Your task to perform on an android device: Show me popular games on the Play Store Image 0: 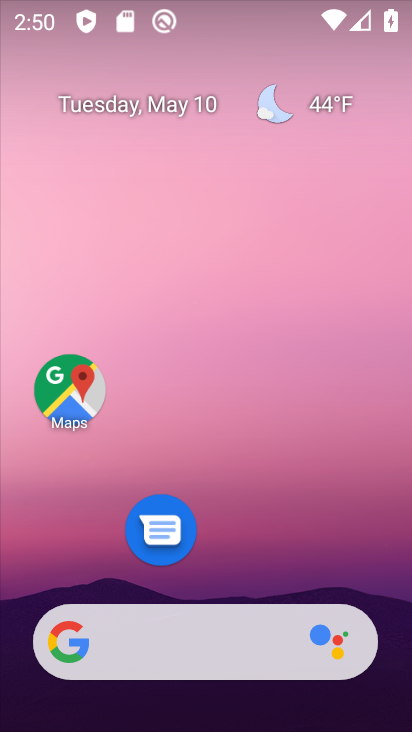
Step 0: drag from (260, 543) to (238, 52)
Your task to perform on an android device: Show me popular games on the Play Store Image 1: 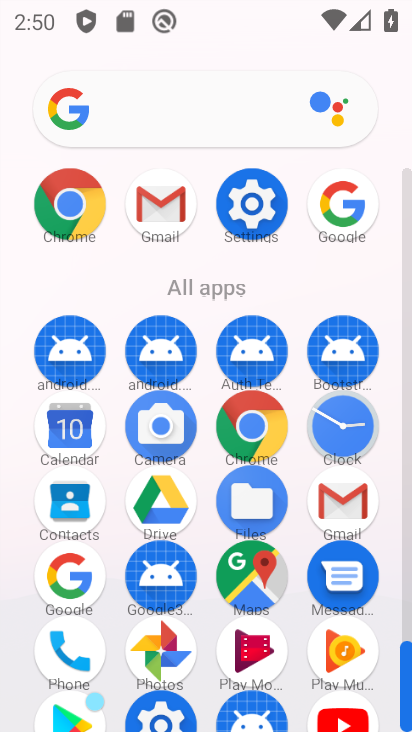
Step 1: drag from (214, 635) to (200, 206)
Your task to perform on an android device: Show me popular games on the Play Store Image 2: 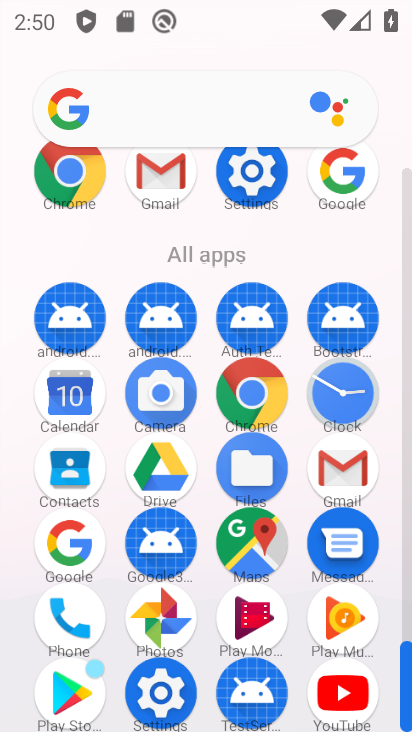
Step 2: click (66, 691)
Your task to perform on an android device: Show me popular games on the Play Store Image 3: 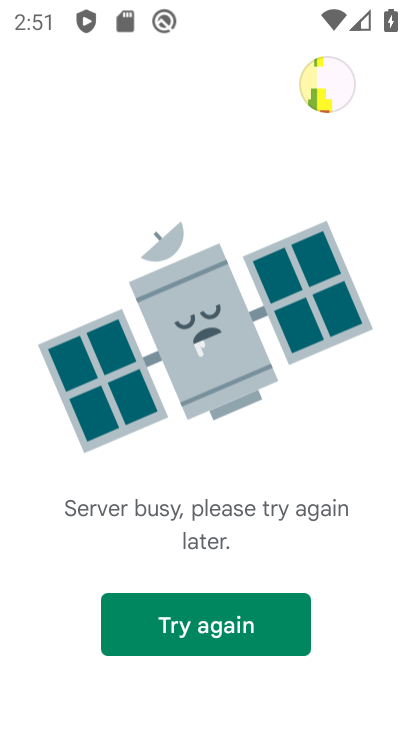
Step 3: task complete